Your task to perform on an android device: move a message to another label in the gmail app Image 0: 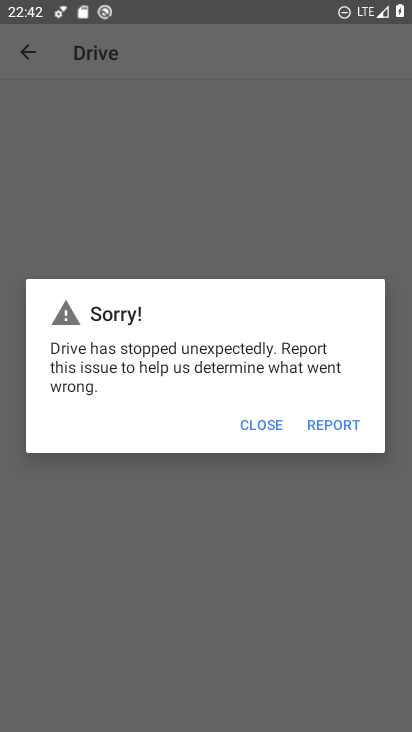
Step 0: press home button
Your task to perform on an android device: move a message to another label in the gmail app Image 1: 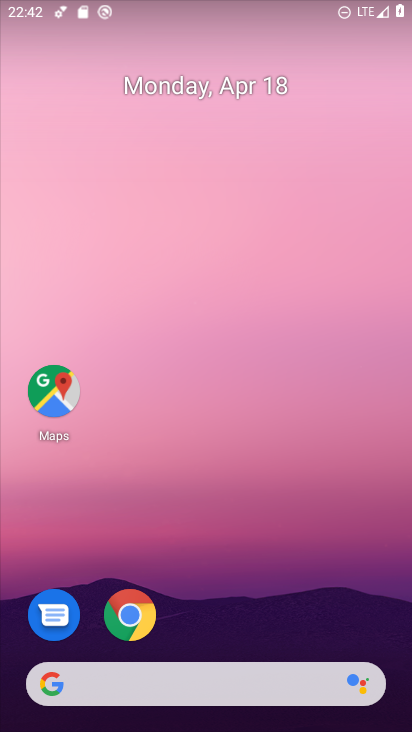
Step 1: drag from (264, 575) to (252, 24)
Your task to perform on an android device: move a message to another label in the gmail app Image 2: 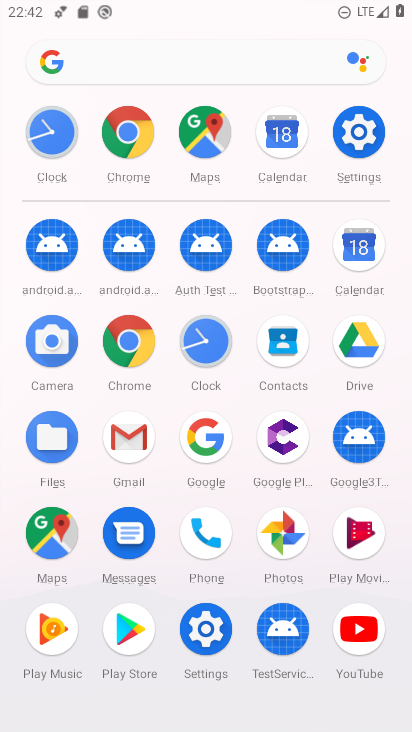
Step 2: click (147, 440)
Your task to perform on an android device: move a message to another label in the gmail app Image 3: 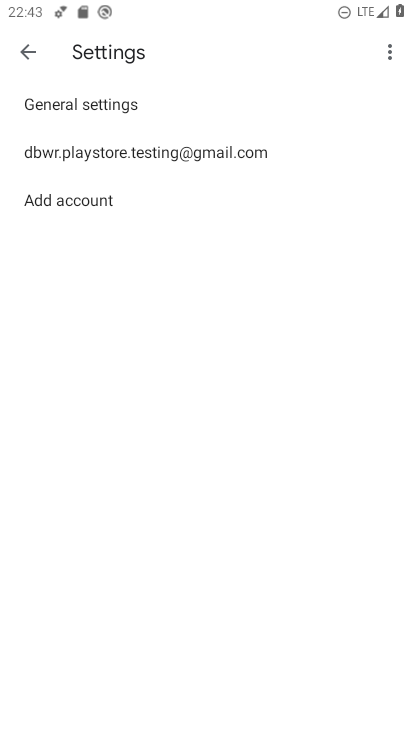
Step 3: click (31, 55)
Your task to perform on an android device: move a message to another label in the gmail app Image 4: 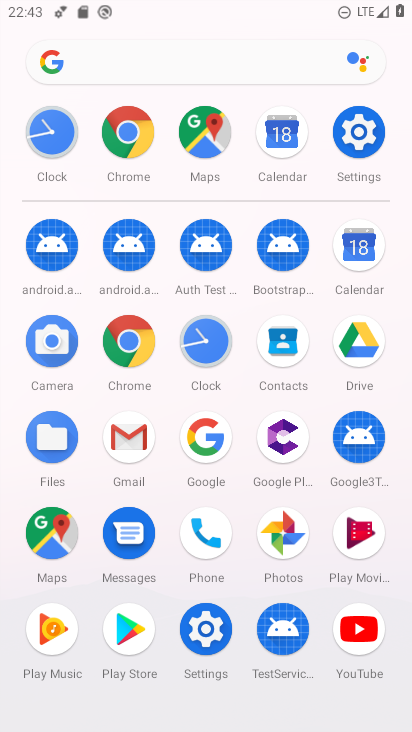
Step 4: click (132, 430)
Your task to perform on an android device: move a message to another label in the gmail app Image 5: 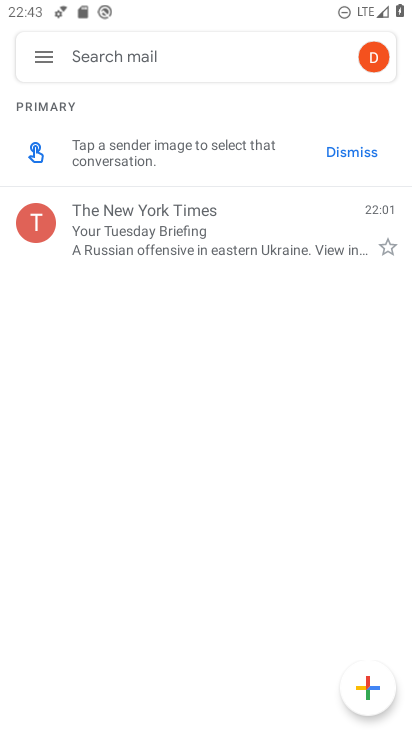
Step 5: click (43, 58)
Your task to perform on an android device: move a message to another label in the gmail app Image 6: 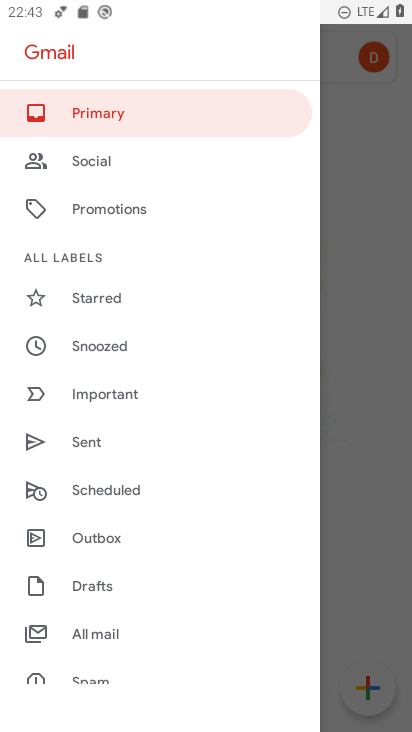
Step 6: click (115, 626)
Your task to perform on an android device: move a message to another label in the gmail app Image 7: 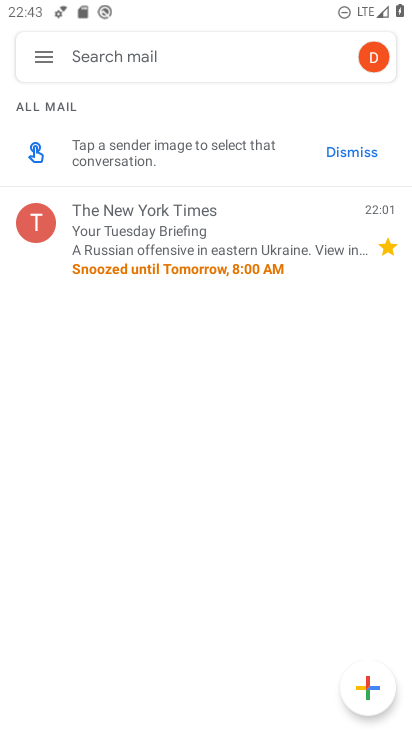
Step 7: click (130, 246)
Your task to perform on an android device: move a message to another label in the gmail app Image 8: 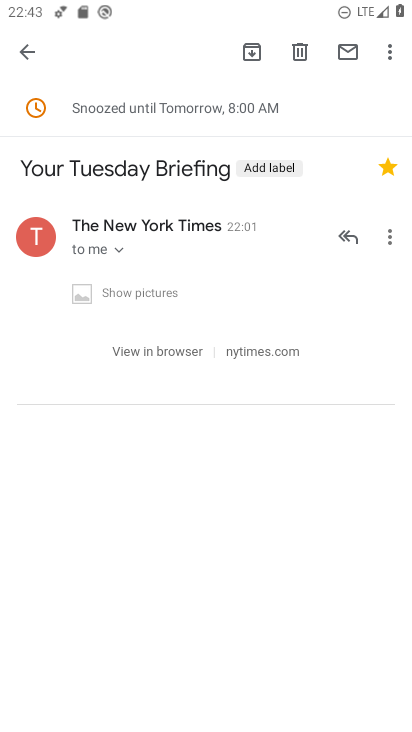
Step 8: click (387, 50)
Your task to perform on an android device: move a message to another label in the gmail app Image 9: 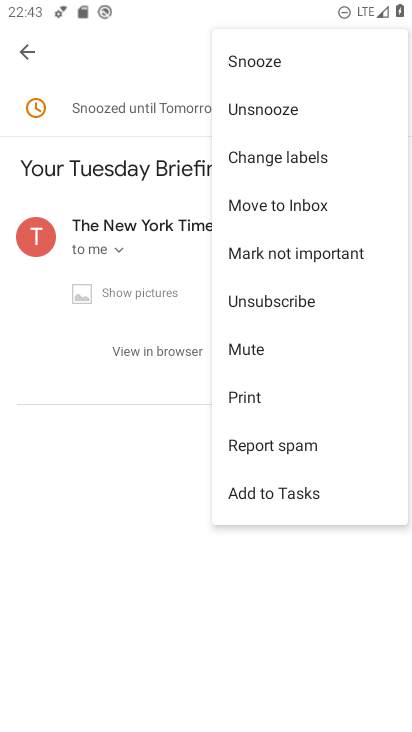
Step 9: click (261, 163)
Your task to perform on an android device: move a message to another label in the gmail app Image 10: 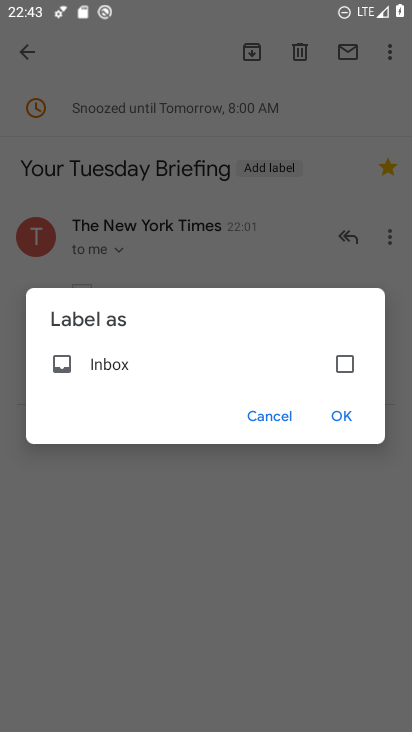
Step 10: click (47, 368)
Your task to perform on an android device: move a message to another label in the gmail app Image 11: 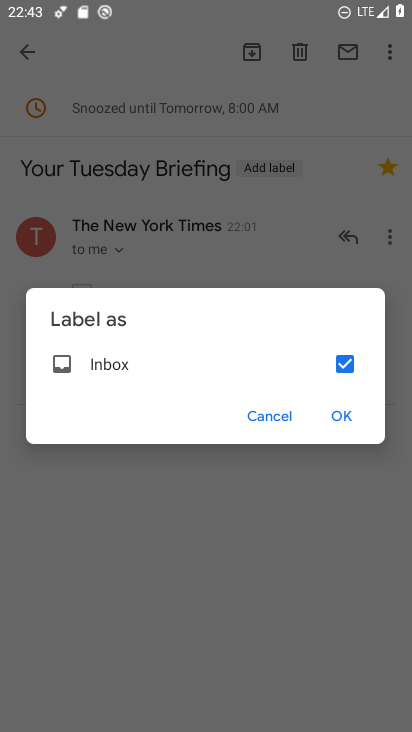
Step 11: click (340, 418)
Your task to perform on an android device: move a message to another label in the gmail app Image 12: 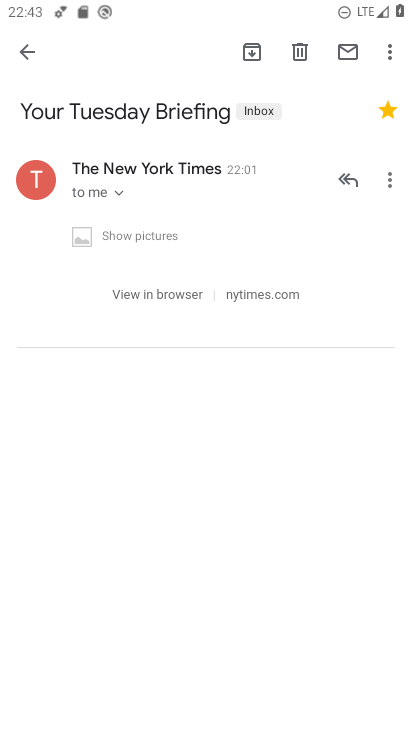
Step 12: task complete